Your task to perform on an android device: change the upload size in google photos Image 0: 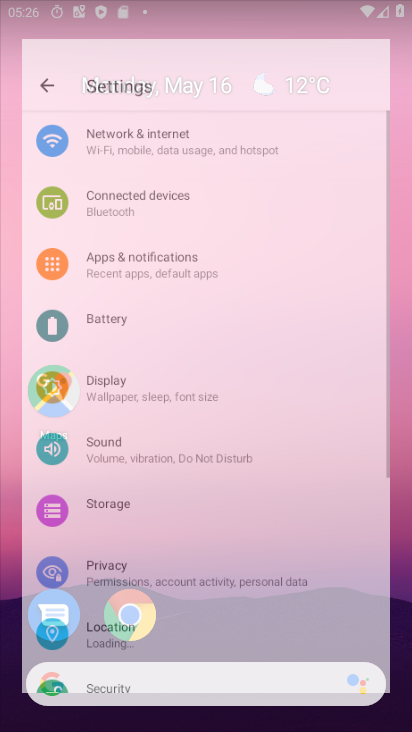
Step 0: drag from (53, 616) to (22, 168)
Your task to perform on an android device: change the upload size in google photos Image 1: 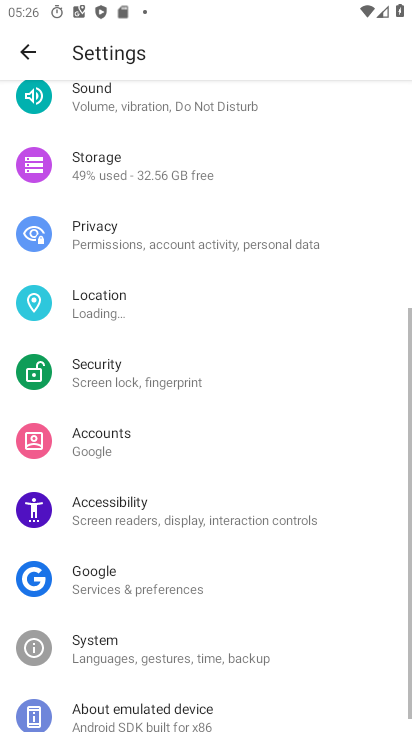
Step 1: drag from (203, 592) to (134, 128)
Your task to perform on an android device: change the upload size in google photos Image 2: 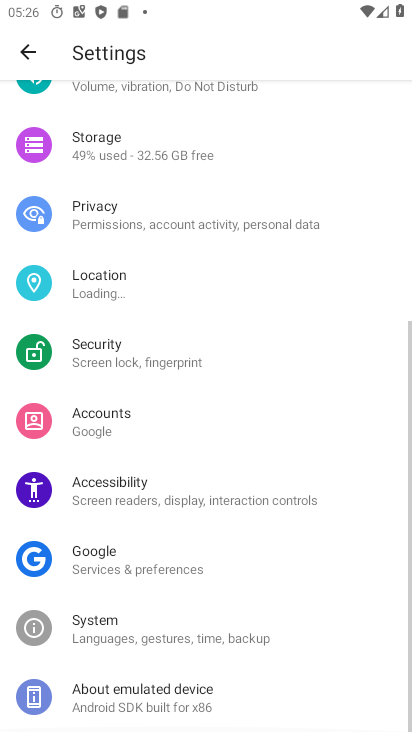
Step 2: drag from (297, 558) to (233, 87)
Your task to perform on an android device: change the upload size in google photos Image 3: 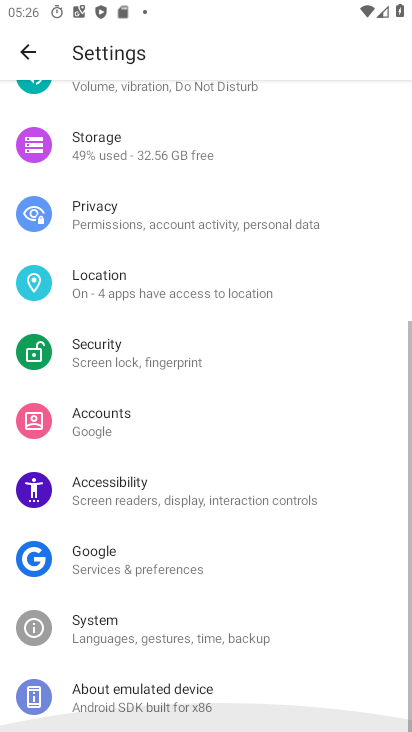
Step 3: drag from (283, 566) to (317, 120)
Your task to perform on an android device: change the upload size in google photos Image 4: 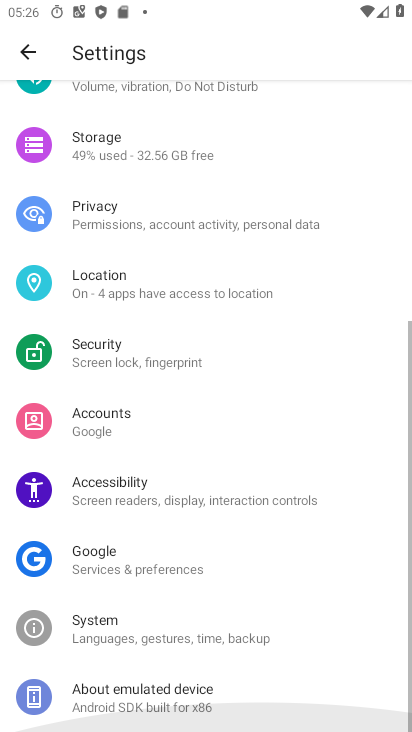
Step 4: drag from (306, 574) to (268, 169)
Your task to perform on an android device: change the upload size in google photos Image 5: 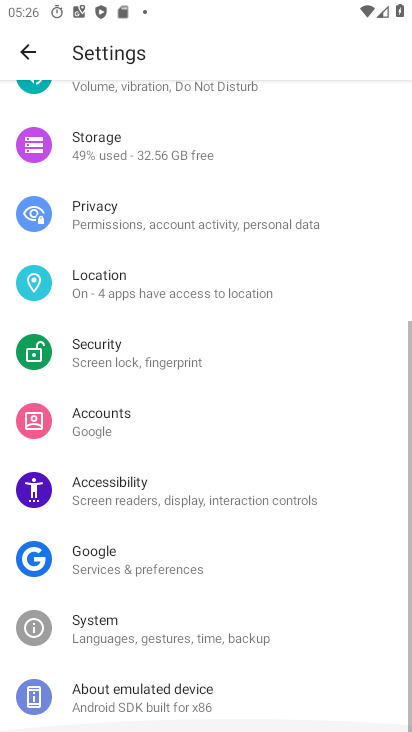
Step 5: drag from (158, 196) to (212, 573)
Your task to perform on an android device: change the upload size in google photos Image 6: 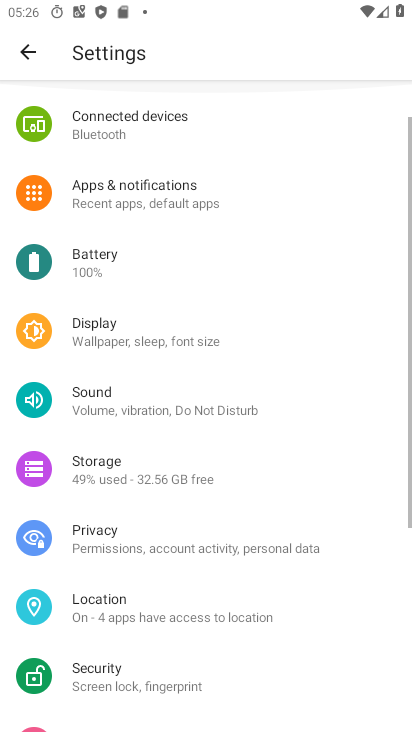
Step 6: drag from (144, 209) to (209, 530)
Your task to perform on an android device: change the upload size in google photos Image 7: 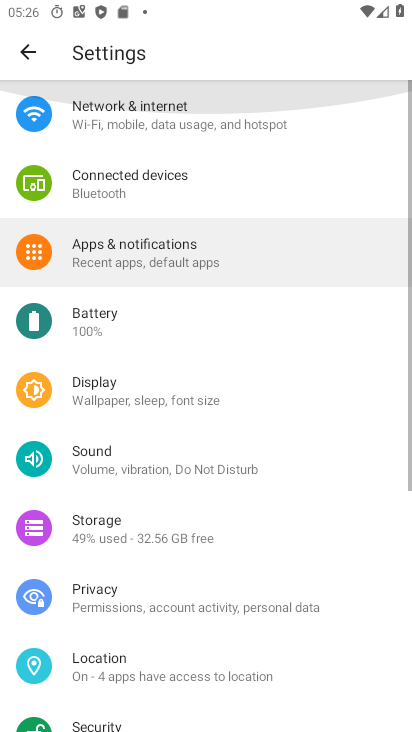
Step 7: drag from (183, 186) to (246, 511)
Your task to perform on an android device: change the upload size in google photos Image 8: 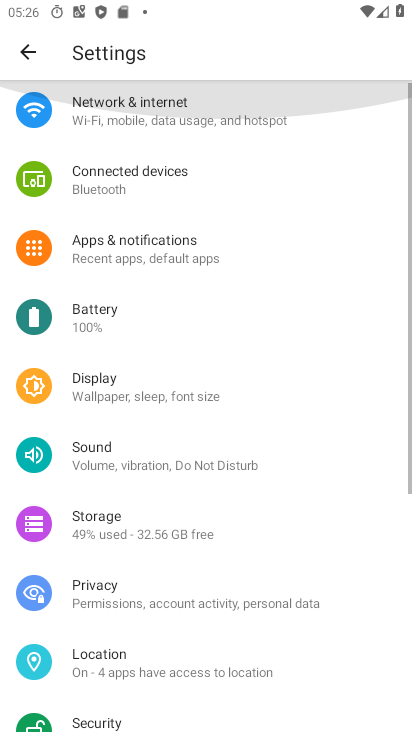
Step 8: drag from (220, 270) to (251, 551)
Your task to perform on an android device: change the upload size in google photos Image 9: 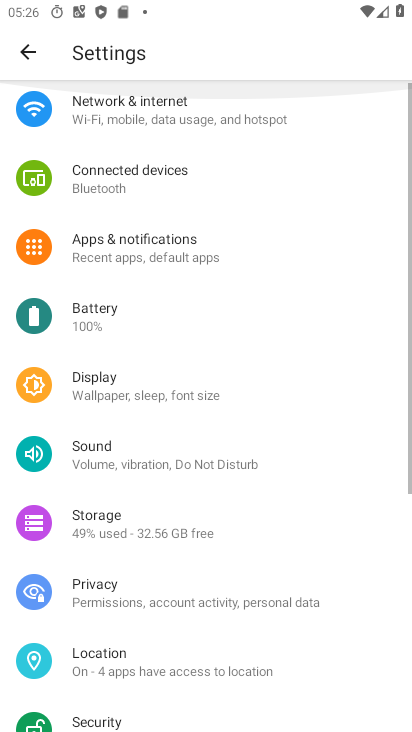
Step 9: drag from (184, 283) to (266, 617)
Your task to perform on an android device: change the upload size in google photos Image 10: 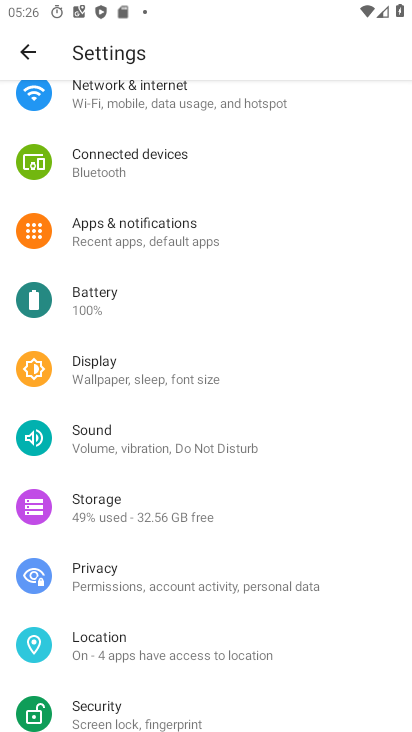
Step 10: drag from (199, 451) to (202, 117)
Your task to perform on an android device: change the upload size in google photos Image 11: 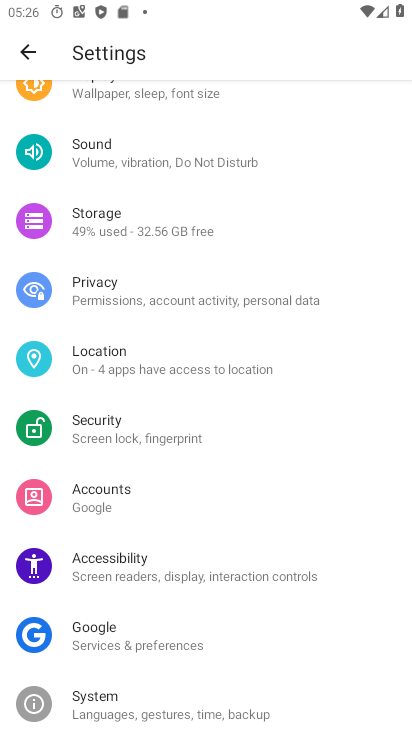
Step 11: press back button
Your task to perform on an android device: change the upload size in google photos Image 12: 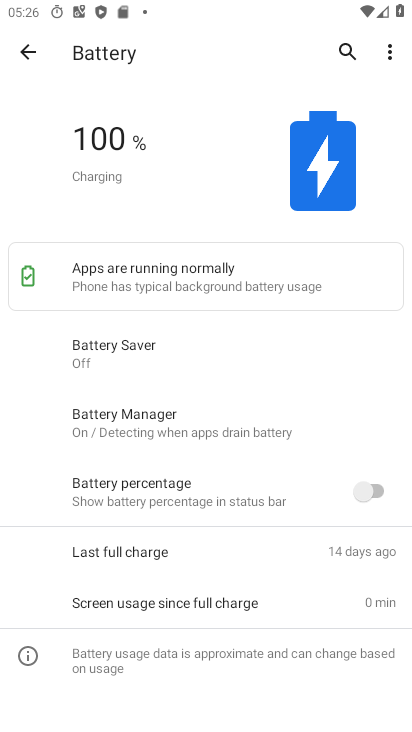
Step 12: click (29, 65)
Your task to perform on an android device: change the upload size in google photos Image 13: 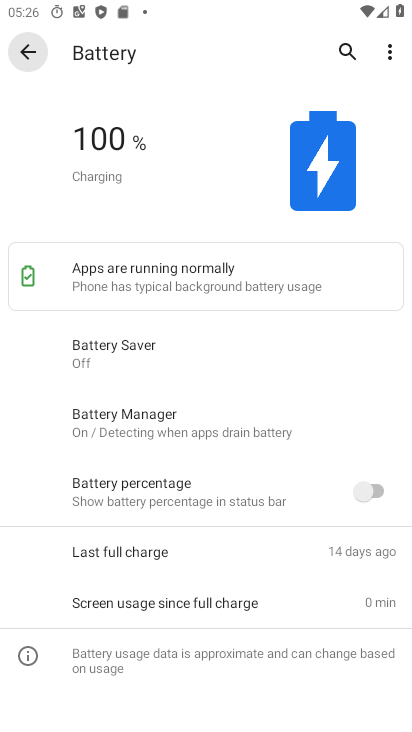
Step 13: click (17, 44)
Your task to perform on an android device: change the upload size in google photos Image 14: 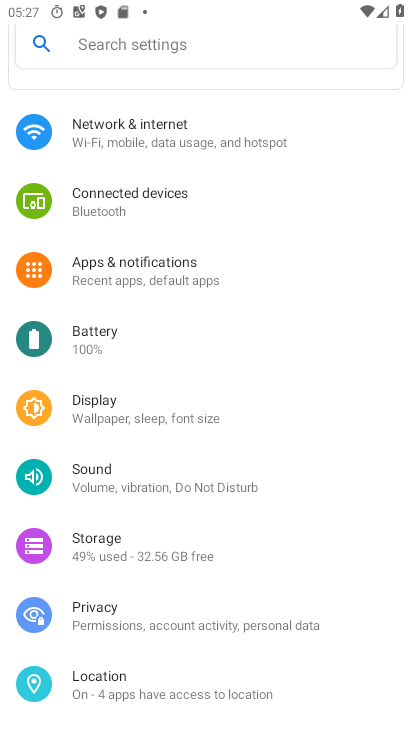
Step 14: press home button
Your task to perform on an android device: change the upload size in google photos Image 15: 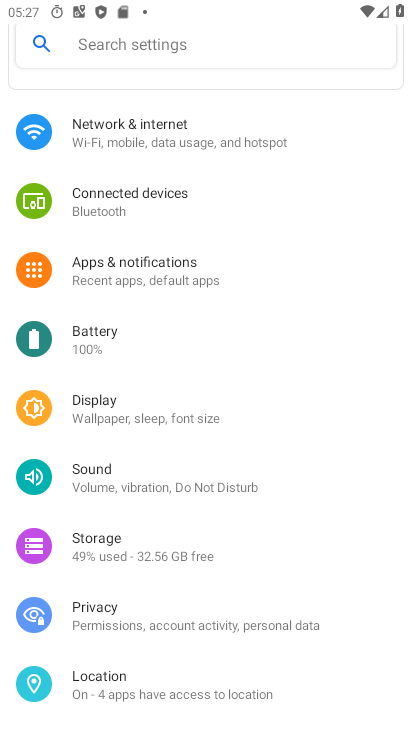
Step 15: press home button
Your task to perform on an android device: change the upload size in google photos Image 16: 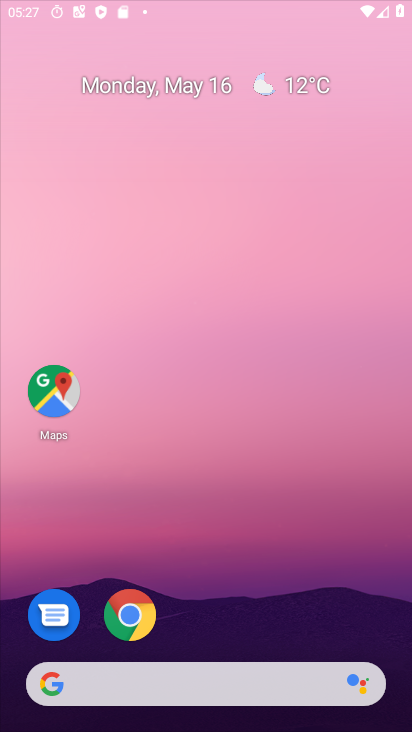
Step 16: press home button
Your task to perform on an android device: change the upload size in google photos Image 17: 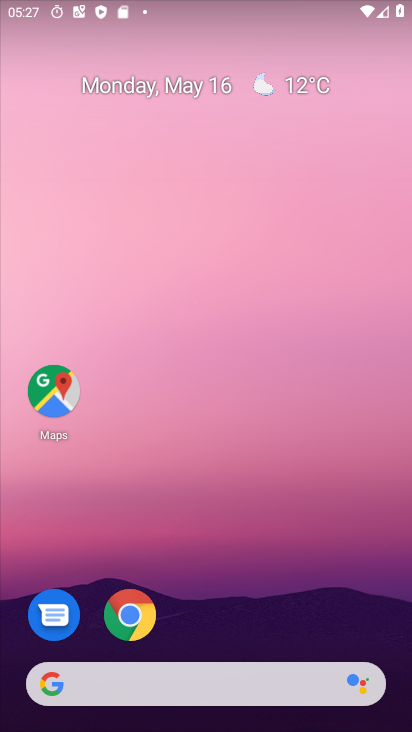
Step 17: drag from (229, 663) to (124, 11)
Your task to perform on an android device: change the upload size in google photos Image 18: 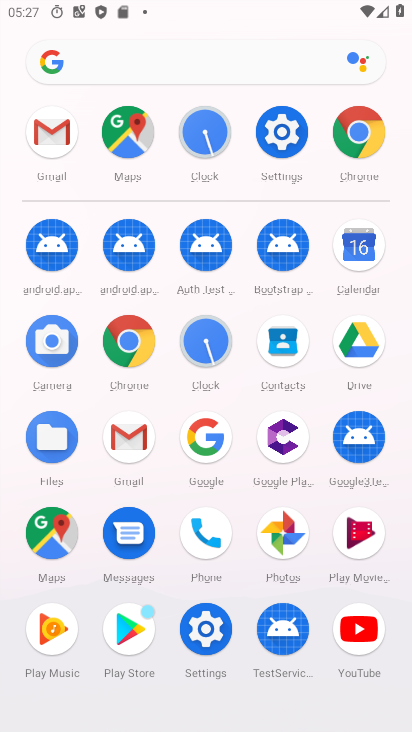
Step 18: click (283, 541)
Your task to perform on an android device: change the upload size in google photos Image 19: 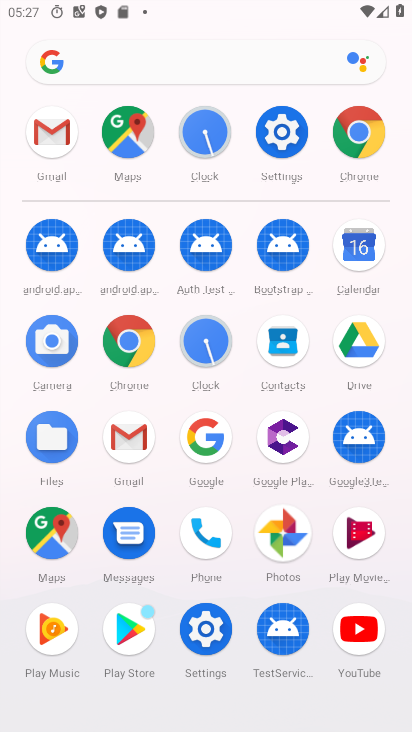
Step 19: click (283, 541)
Your task to perform on an android device: change the upload size in google photos Image 20: 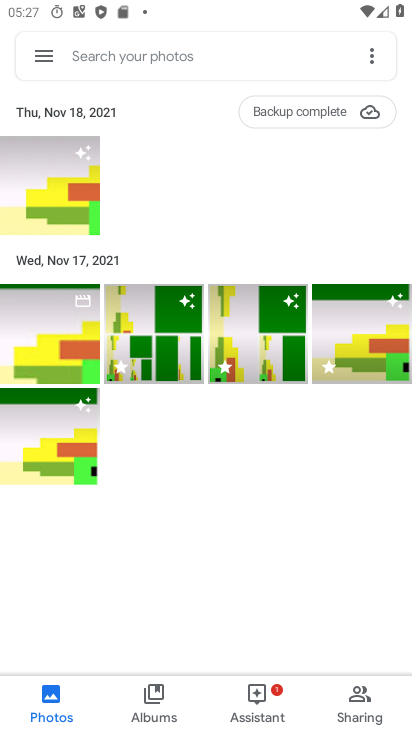
Step 20: click (40, 56)
Your task to perform on an android device: change the upload size in google photos Image 21: 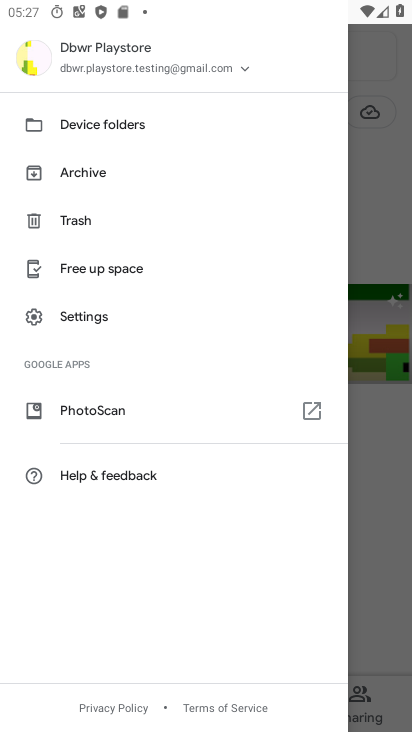
Step 21: click (81, 301)
Your task to perform on an android device: change the upload size in google photos Image 22: 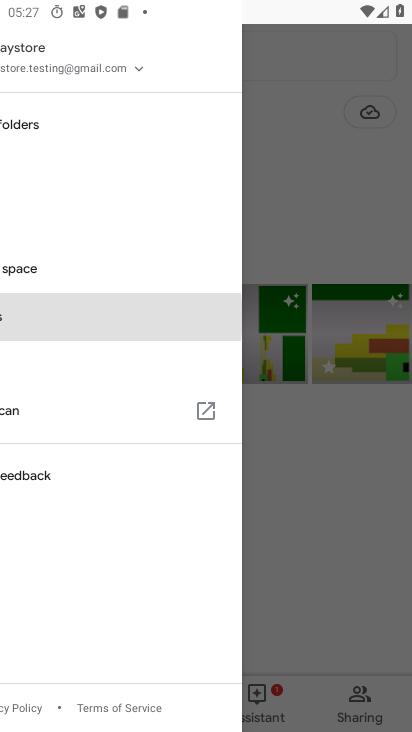
Step 22: click (75, 312)
Your task to perform on an android device: change the upload size in google photos Image 23: 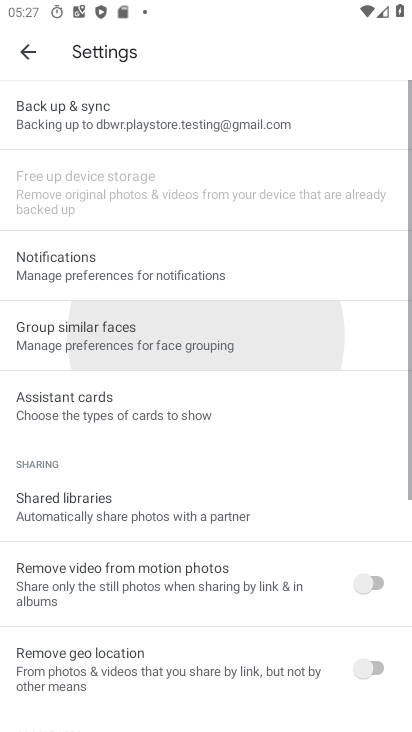
Step 23: click (75, 313)
Your task to perform on an android device: change the upload size in google photos Image 24: 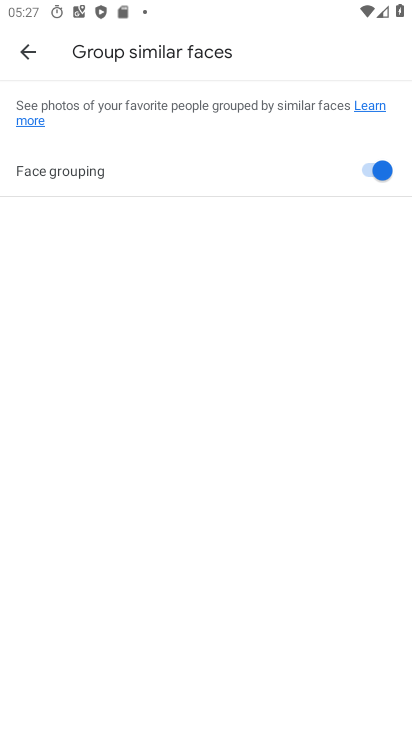
Step 24: click (29, 53)
Your task to perform on an android device: change the upload size in google photos Image 25: 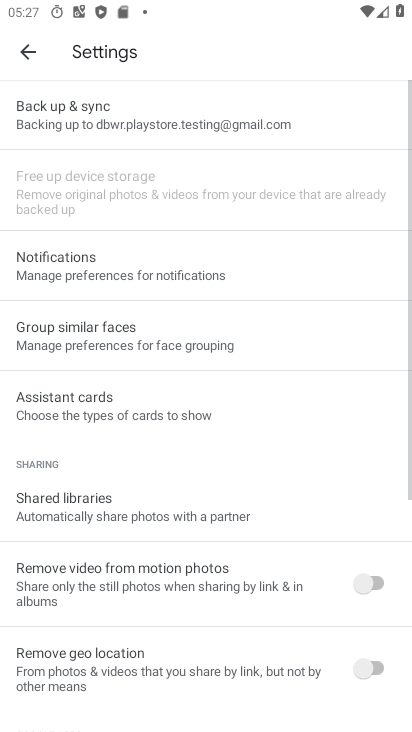
Step 25: click (73, 118)
Your task to perform on an android device: change the upload size in google photos Image 26: 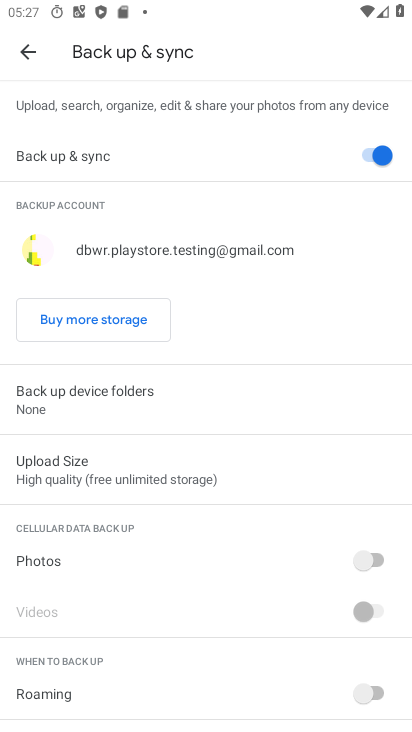
Step 26: click (64, 478)
Your task to perform on an android device: change the upload size in google photos Image 27: 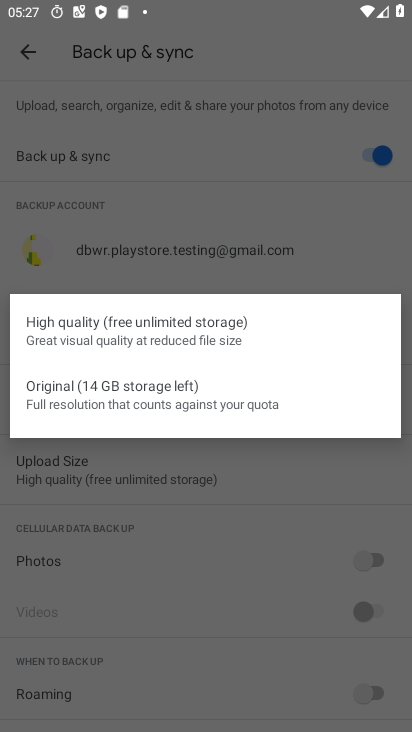
Step 27: click (55, 394)
Your task to perform on an android device: change the upload size in google photos Image 28: 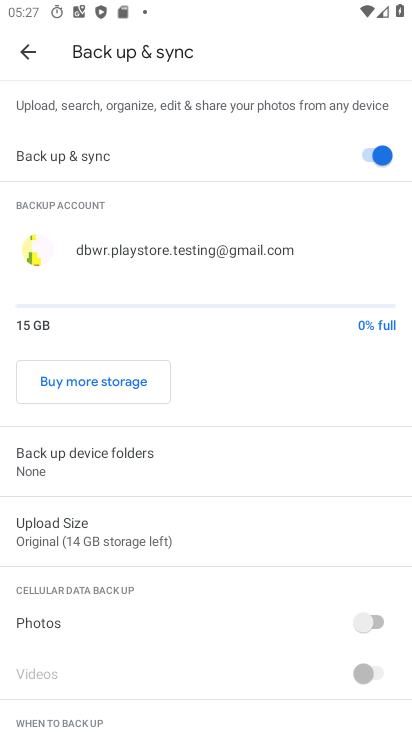
Step 28: task complete